Your task to perform on an android device: Open sound settings Image 0: 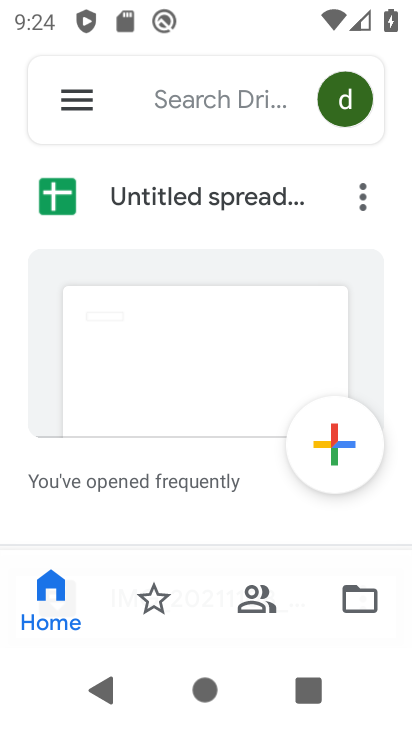
Step 0: press home button
Your task to perform on an android device: Open sound settings Image 1: 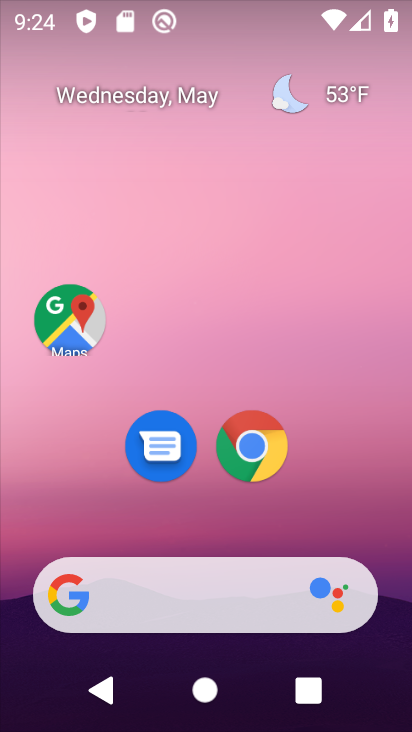
Step 1: drag from (336, 527) to (323, 161)
Your task to perform on an android device: Open sound settings Image 2: 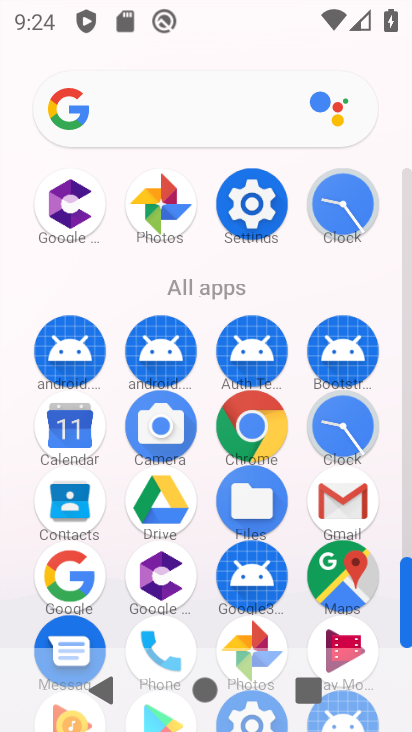
Step 2: click (260, 207)
Your task to perform on an android device: Open sound settings Image 3: 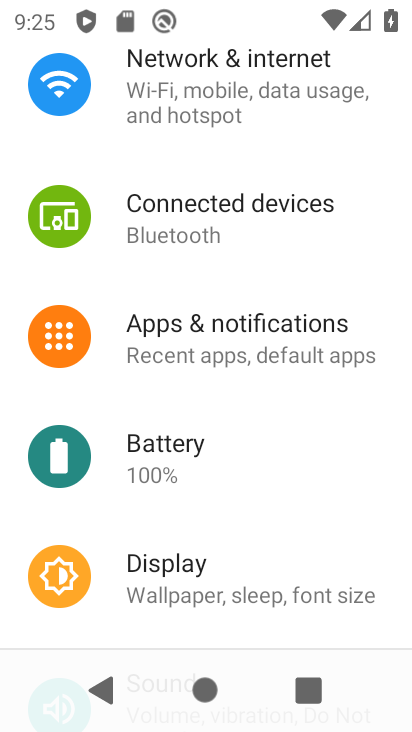
Step 3: drag from (258, 531) to (240, 197)
Your task to perform on an android device: Open sound settings Image 4: 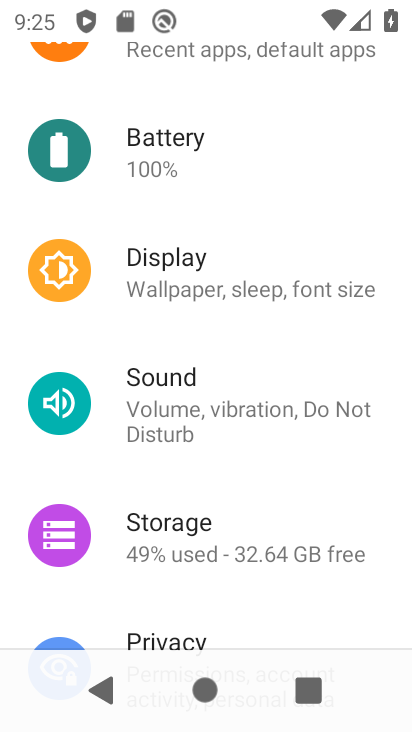
Step 4: drag from (290, 565) to (243, 269)
Your task to perform on an android device: Open sound settings Image 5: 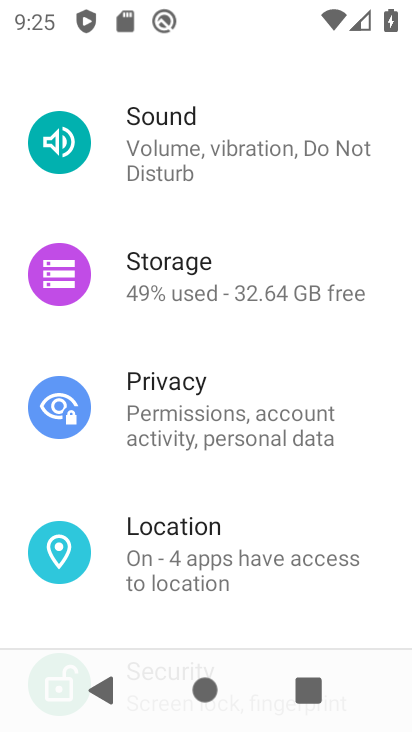
Step 5: click (125, 148)
Your task to perform on an android device: Open sound settings Image 6: 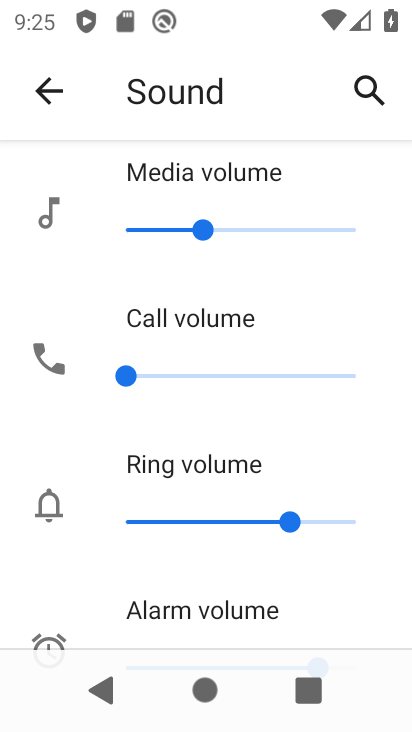
Step 6: task complete